Your task to perform on an android device: turn on javascript in the chrome app Image 0: 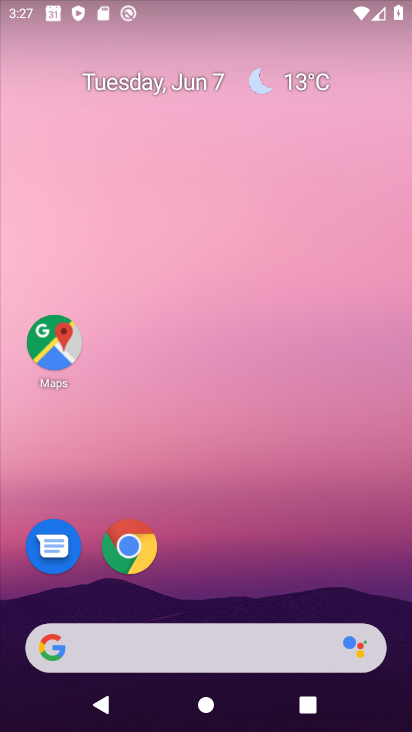
Step 0: click (118, 564)
Your task to perform on an android device: turn on javascript in the chrome app Image 1: 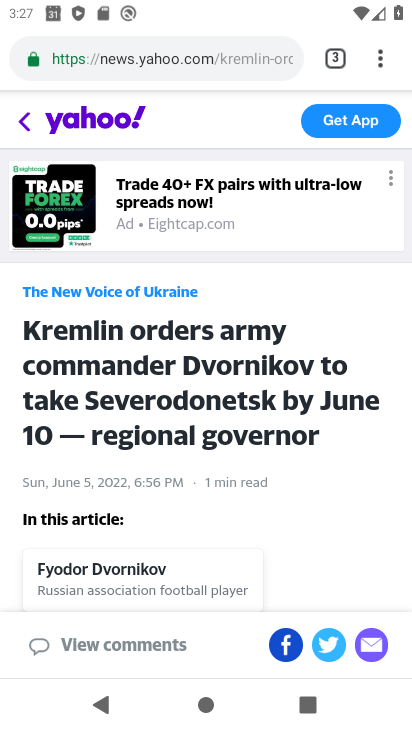
Step 1: click (389, 64)
Your task to perform on an android device: turn on javascript in the chrome app Image 2: 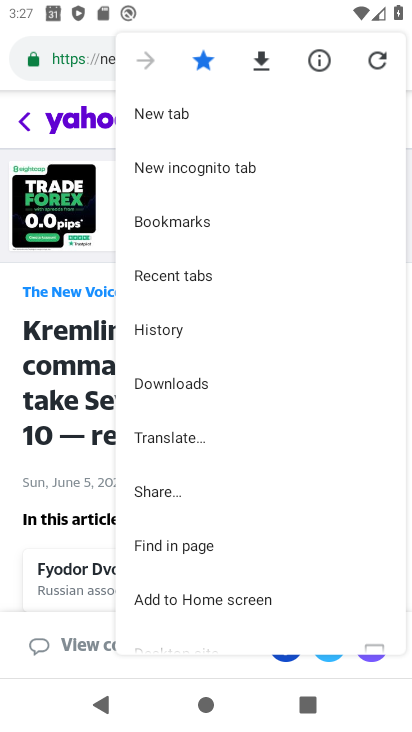
Step 2: drag from (162, 566) to (146, 205)
Your task to perform on an android device: turn on javascript in the chrome app Image 3: 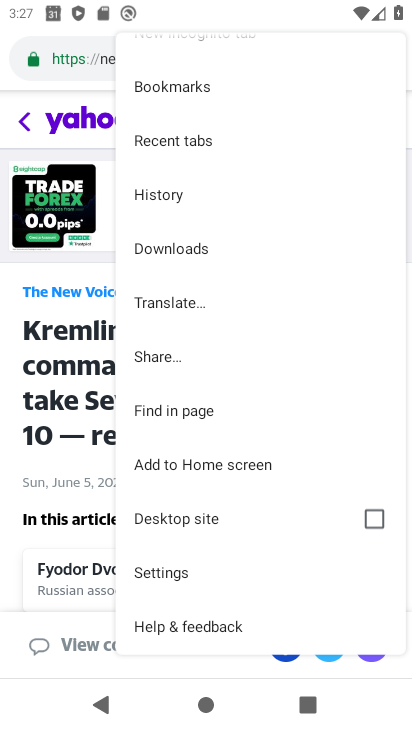
Step 3: click (168, 581)
Your task to perform on an android device: turn on javascript in the chrome app Image 4: 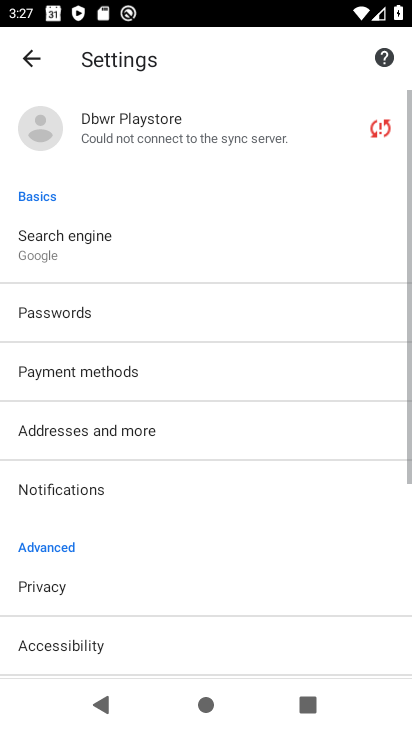
Step 4: drag from (168, 581) to (167, 202)
Your task to perform on an android device: turn on javascript in the chrome app Image 5: 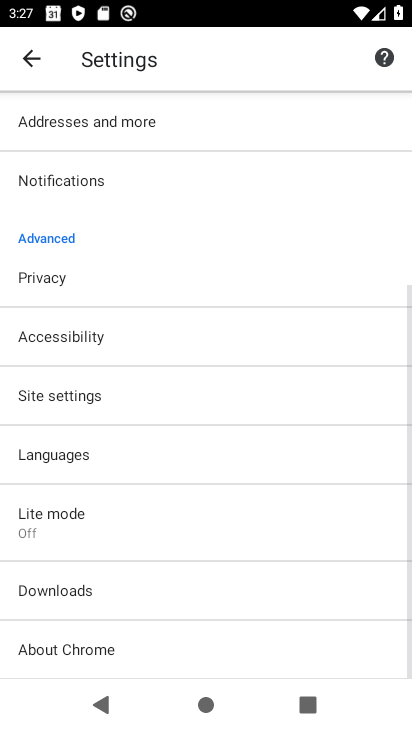
Step 5: drag from (30, 625) to (71, 400)
Your task to perform on an android device: turn on javascript in the chrome app Image 6: 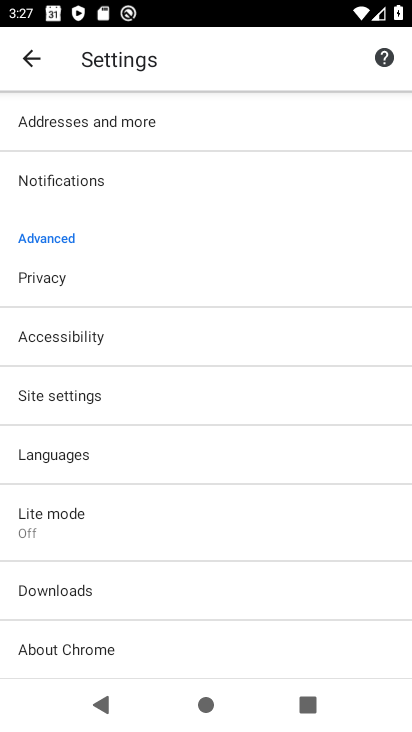
Step 6: click (93, 400)
Your task to perform on an android device: turn on javascript in the chrome app Image 7: 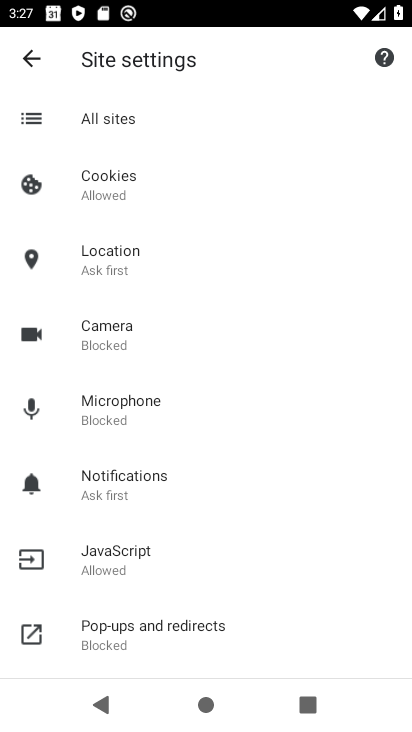
Step 7: click (161, 578)
Your task to perform on an android device: turn on javascript in the chrome app Image 8: 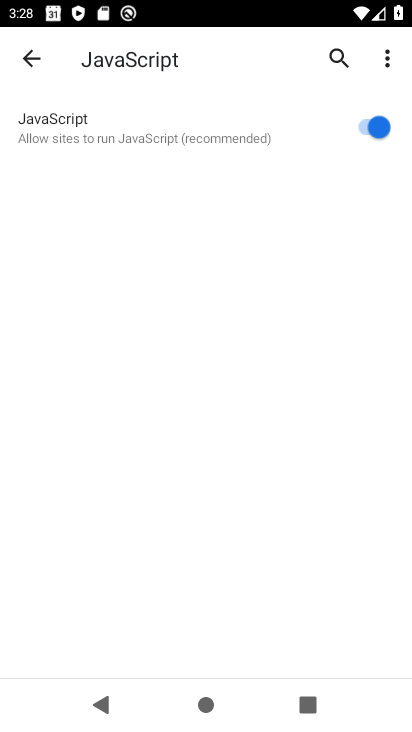
Step 8: task complete